Your task to perform on an android device: Open Google Image 0: 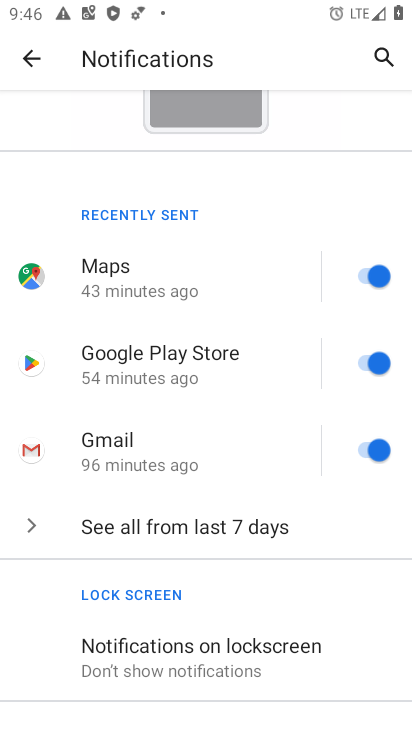
Step 0: press home button
Your task to perform on an android device: Open Google Image 1: 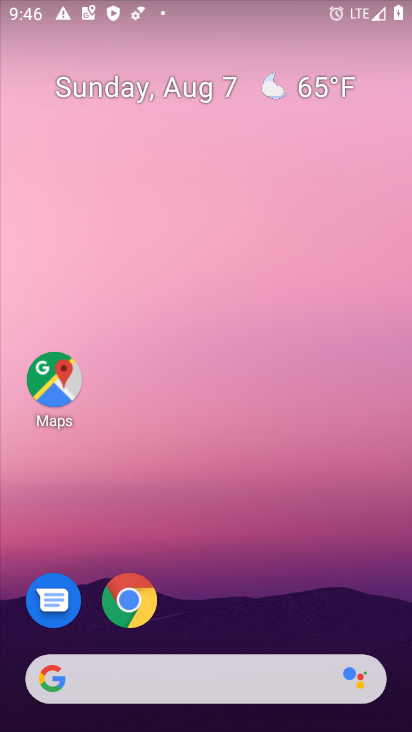
Step 1: drag from (157, 485) to (95, 67)
Your task to perform on an android device: Open Google Image 2: 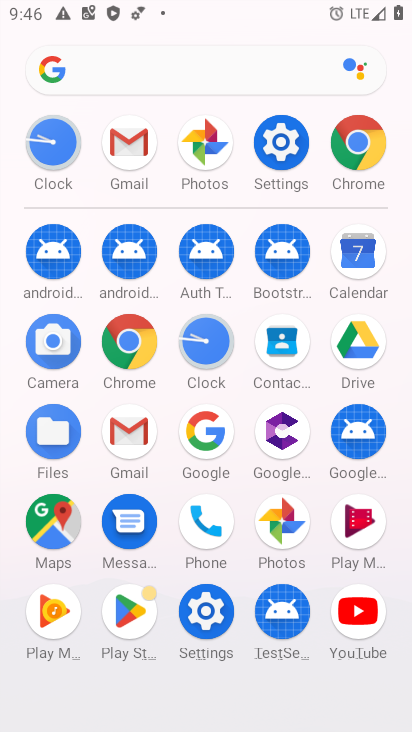
Step 2: click (212, 442)
Your task to perform on an android device: Open Google Image 3: 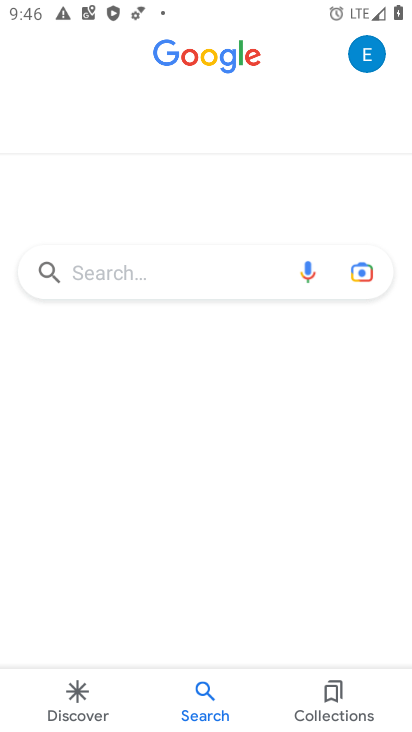
Step 3: task complete